Your task to perform on an android device: stop showing notifications on the lock screen Image 0: 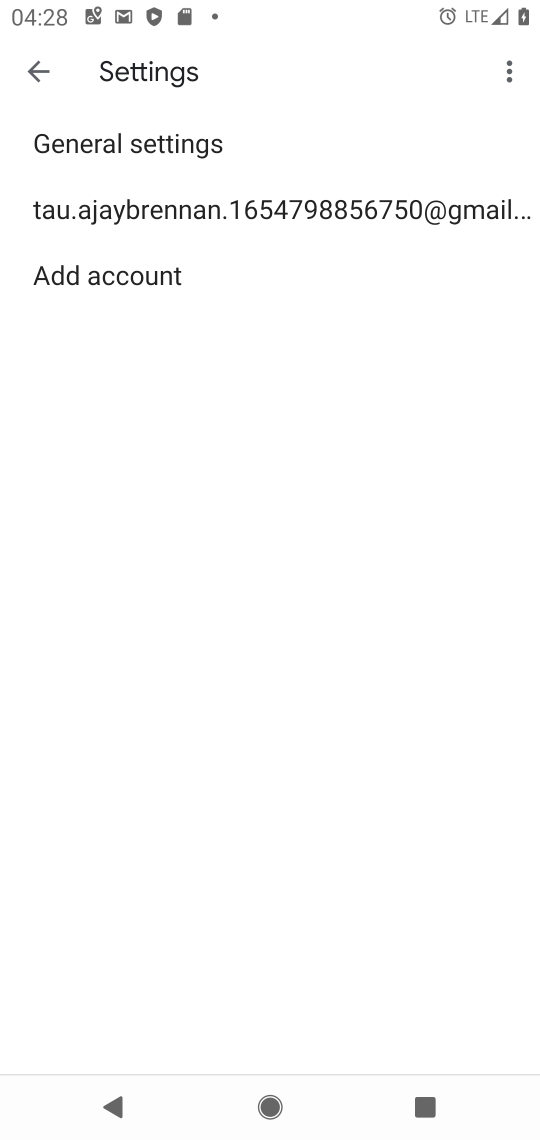
Step 0: press back button
Your task to perform on an android device: stop showing notifications on the lock screen Image 1: 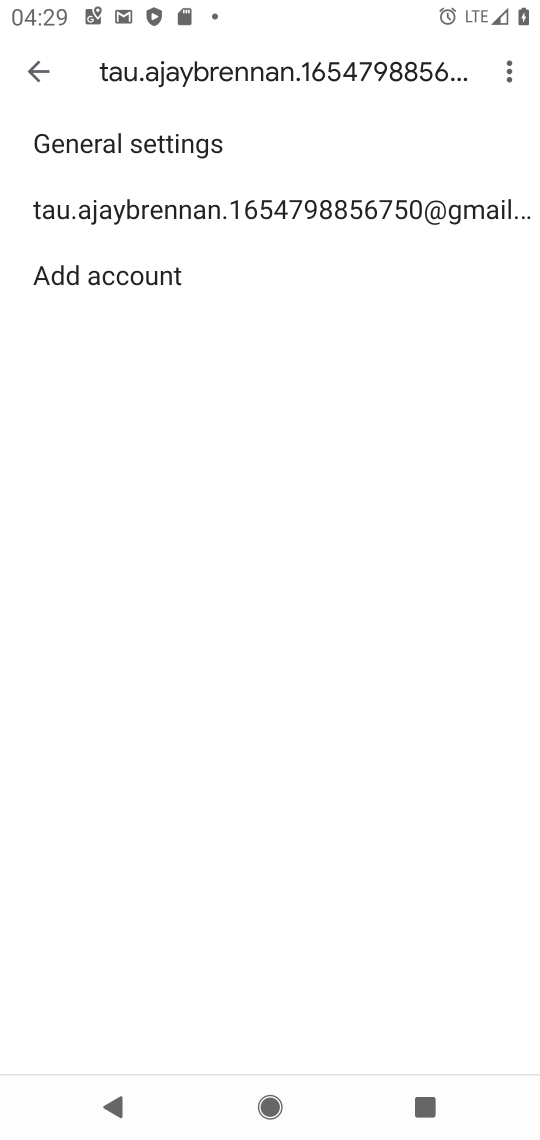
Step 1: press back button
Your task to perform on an android device: stop showing notifications on the lock screen Image 2: 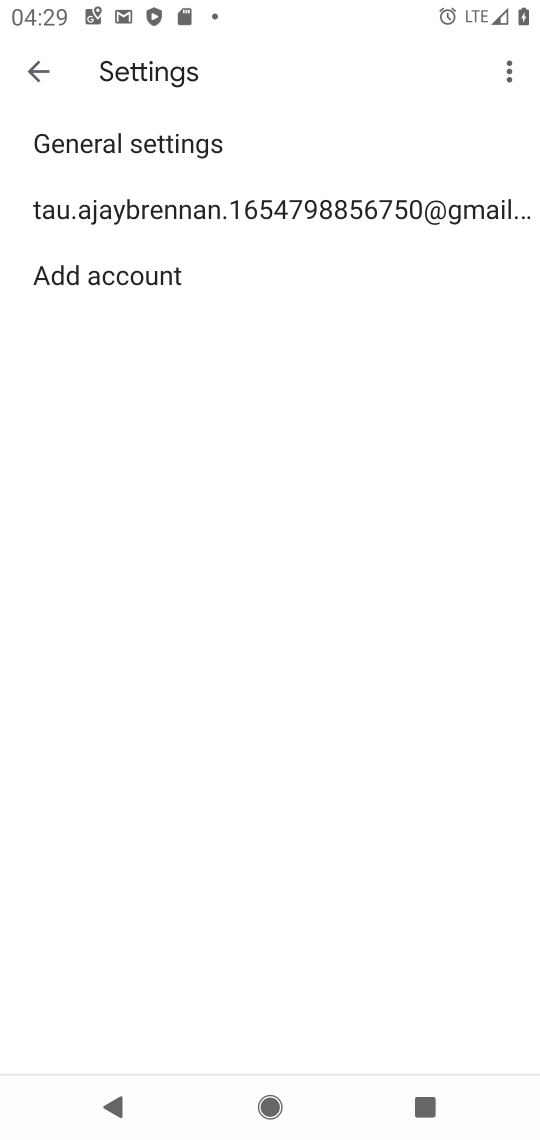
Step 2: press back button
Your task to perform on an android device: stop showing notifications on the lock screen Image 3: 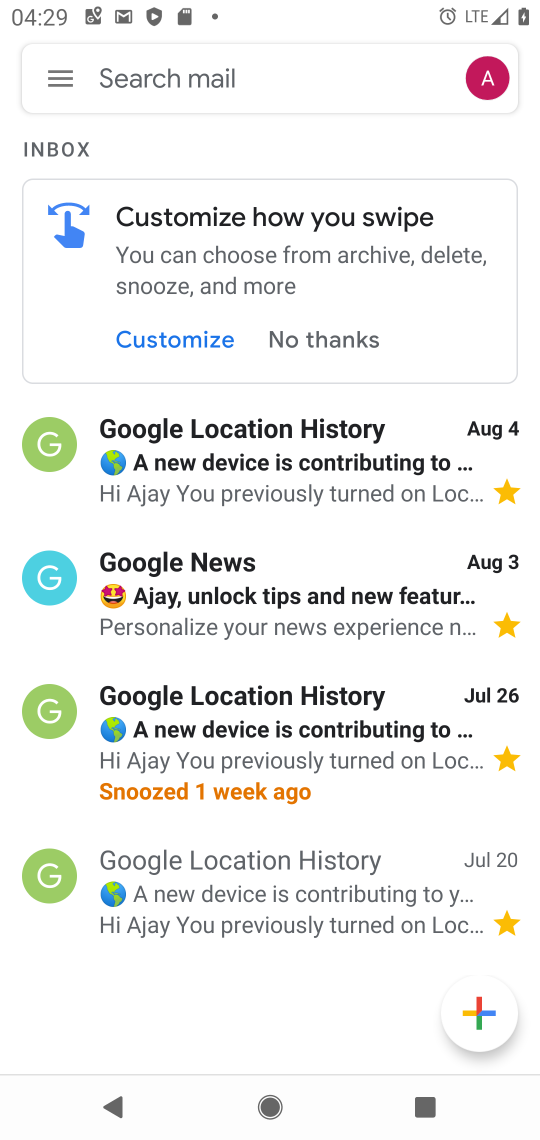
Step 3: press back button
Your task to perform on an android device: stop showing notifications on the lock screen Image 4: 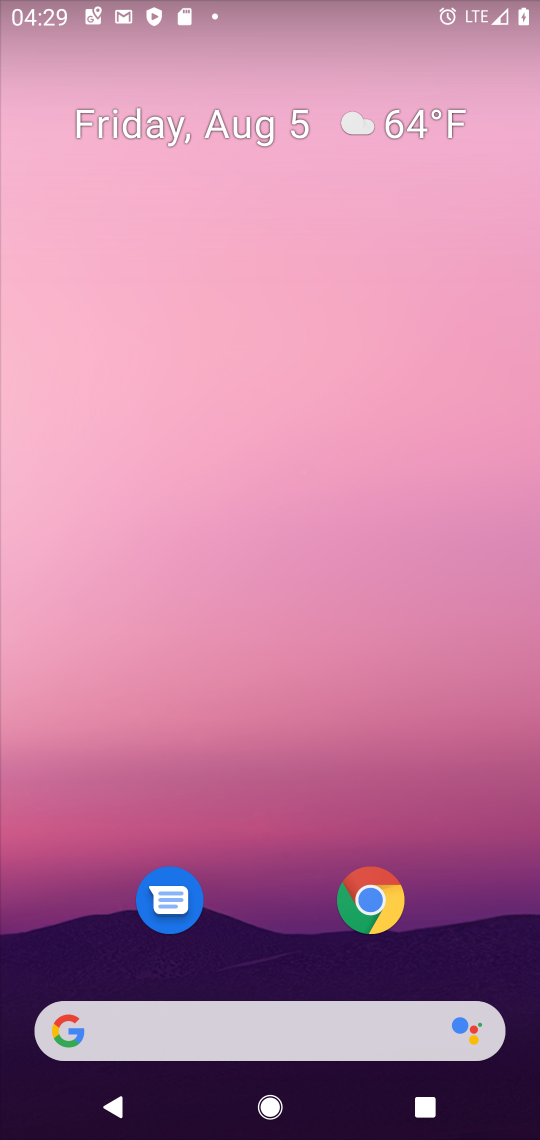
Step 4: drag from (250, 898) to (409, 11)
Your task to perform on an android device: stop showing notifications on the lock screen Image 5: 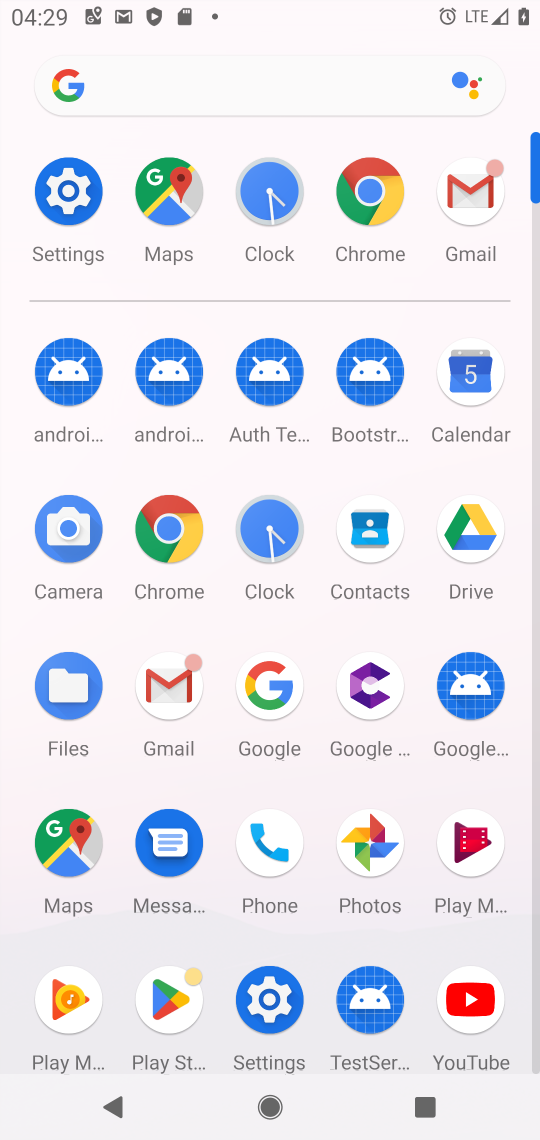
Step 5: click (66, 189)
Your task to perform on an android device: stop showing notifications on the lock screen Image 6: 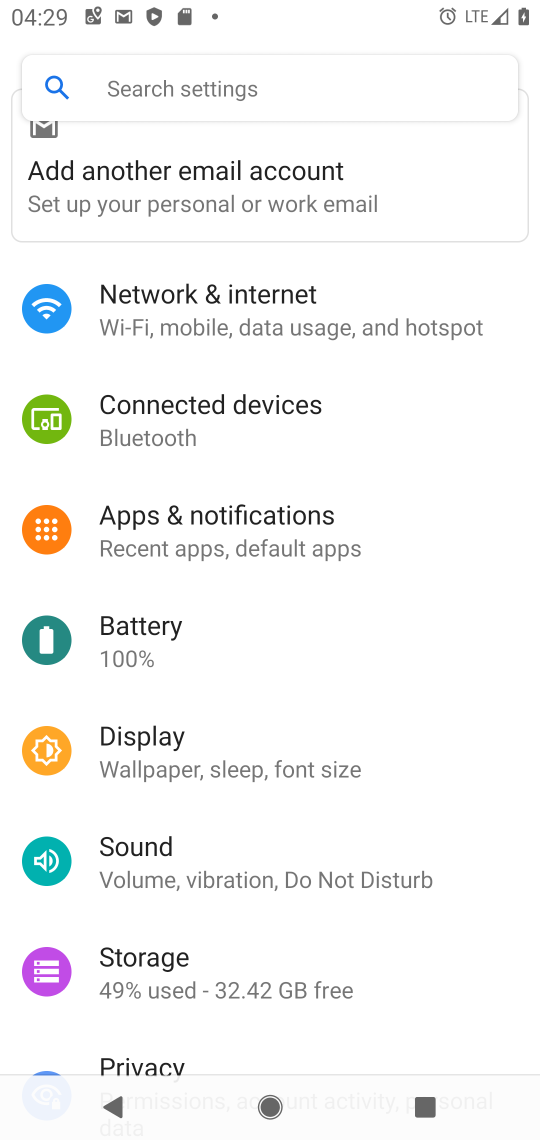
Step 6: click (225, 534)
Your task to perform on an android device: stop showing notifications on the lock screen Image 7: 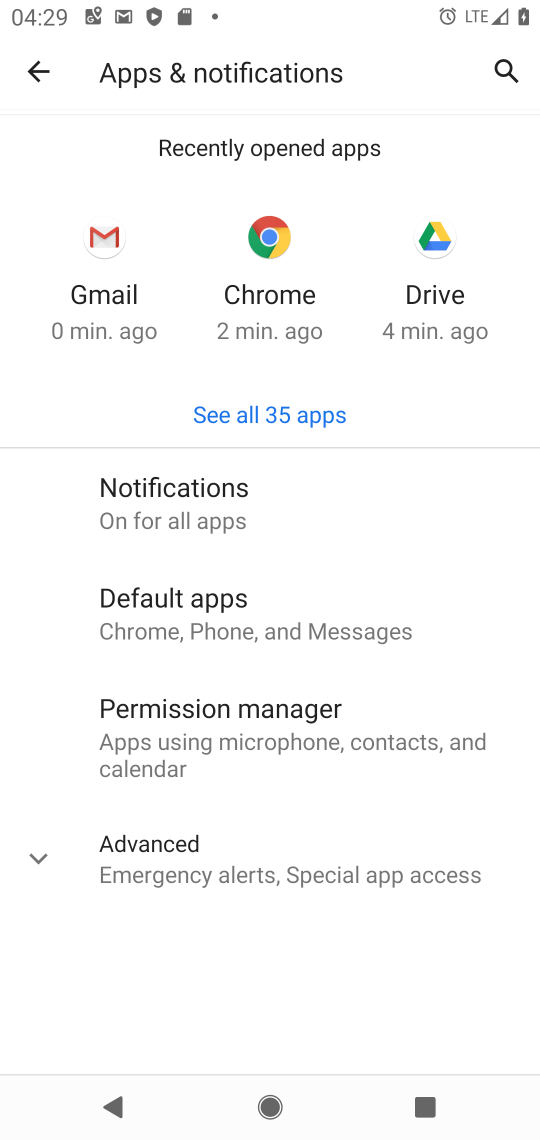
Step 7: click (191, 857)
Your task to perform on an android device: stop showing notifications on the lock screen Image 8: 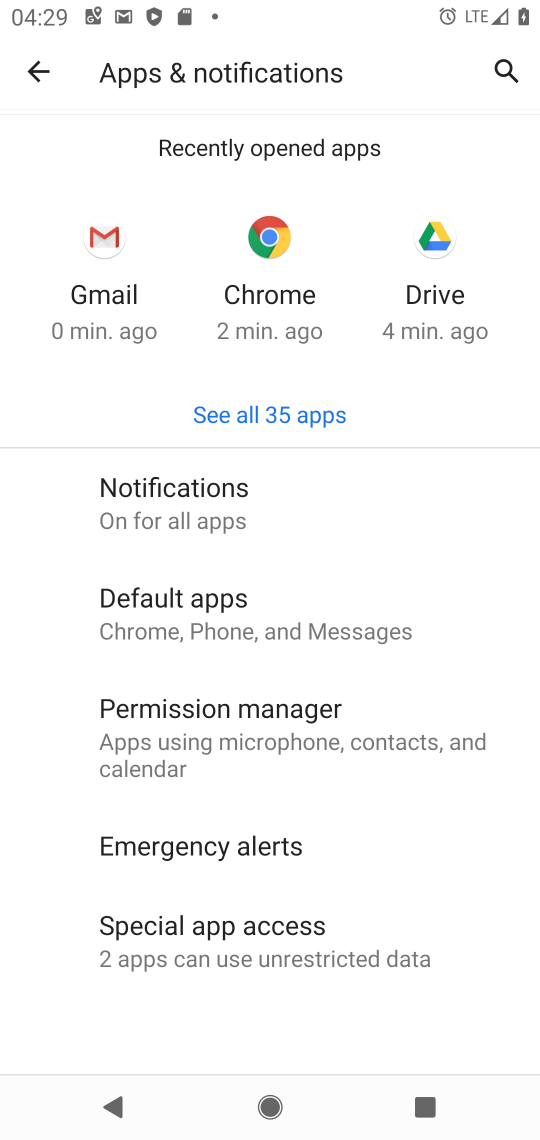
Step 8: click (184, 478)
Your task to perform on an android device: stop showing notifications on the lock screen Image 9: 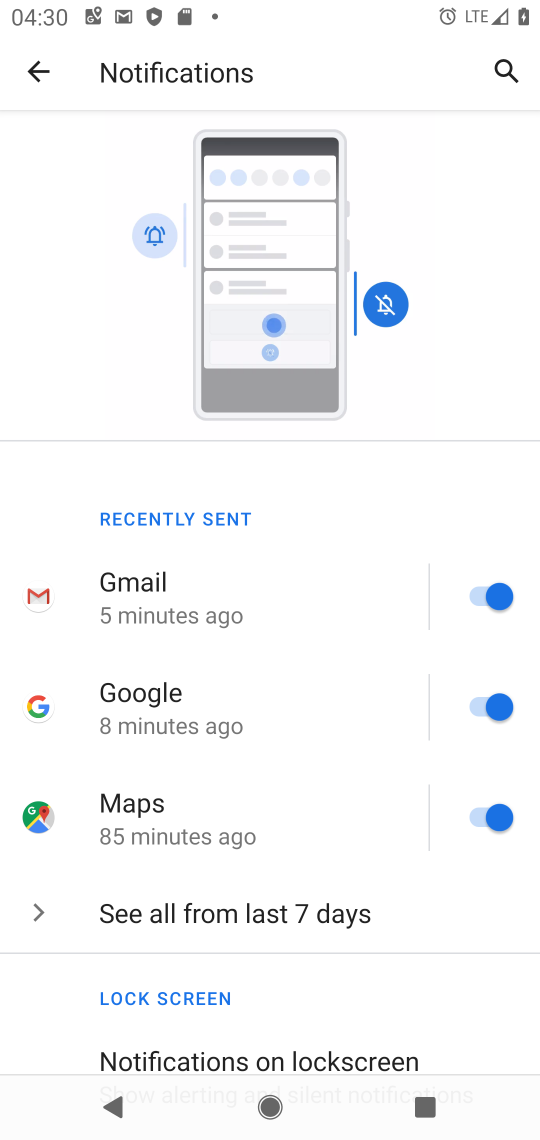
Step 9: click (276, 1032)
Your task to perform on an android device: stop showing notifications on the lock screen Image 10: 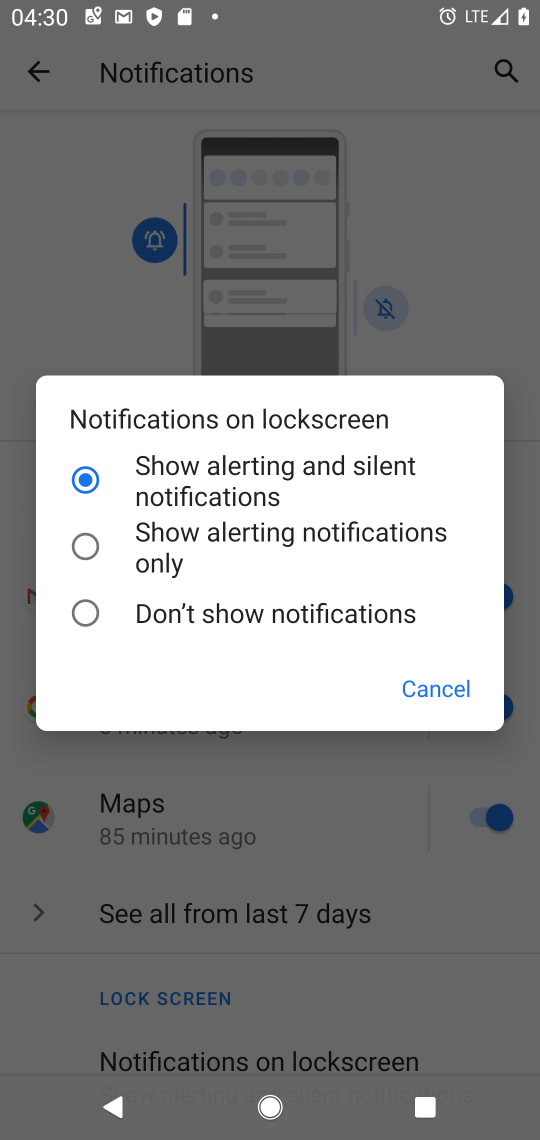
Step 10: click (248, 620)
Your task to perform on an android device: stop showing notifications on the lock screen Image 11: 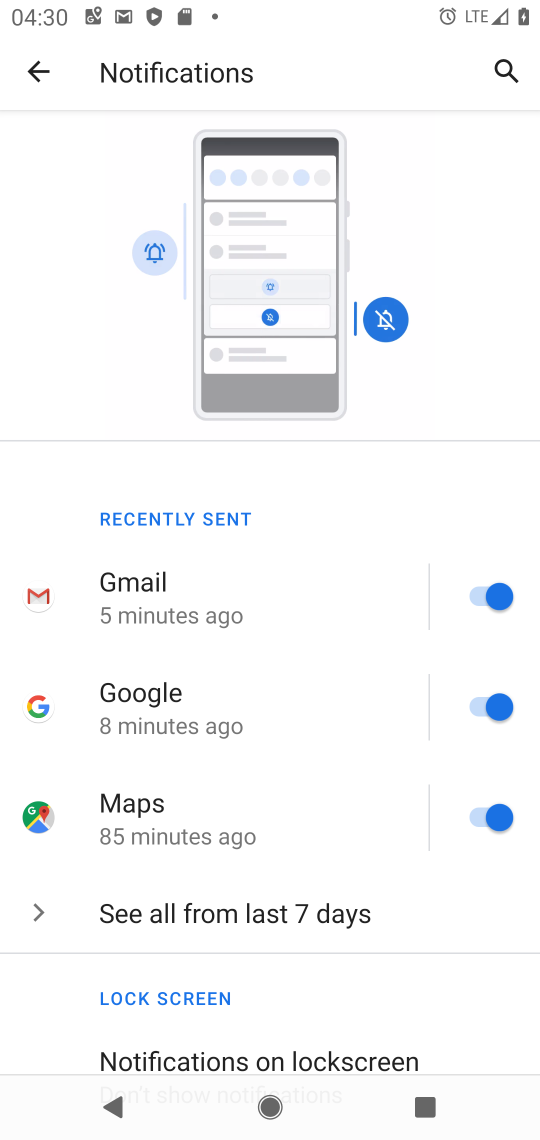
Step 11: task complete